Your task to perform on an android device: Open Maps and search for coffee Image 0: 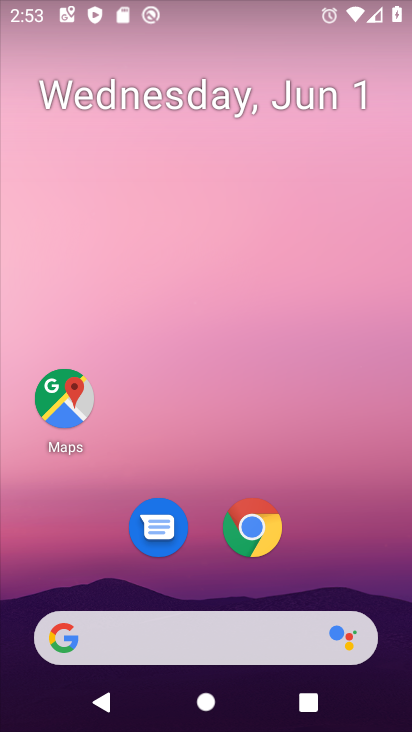
Step 0: click (61, 402)
Your task to perform on an android device: Open Maps and search for coffee Image 1: 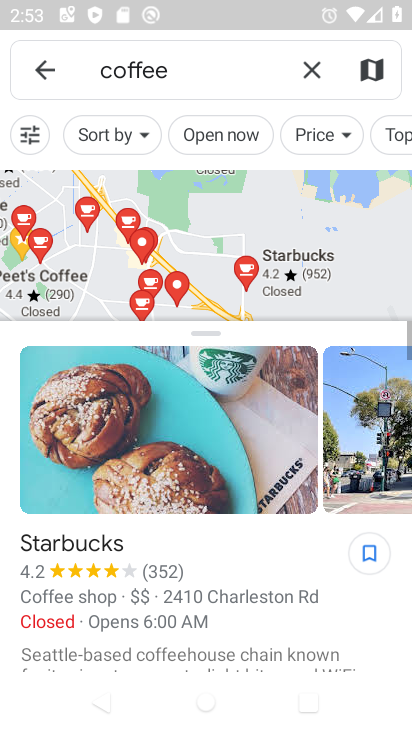
Step 1: click (313, 69)
Your task to perform on an android device: Open Maps and search for coffee Image 2: 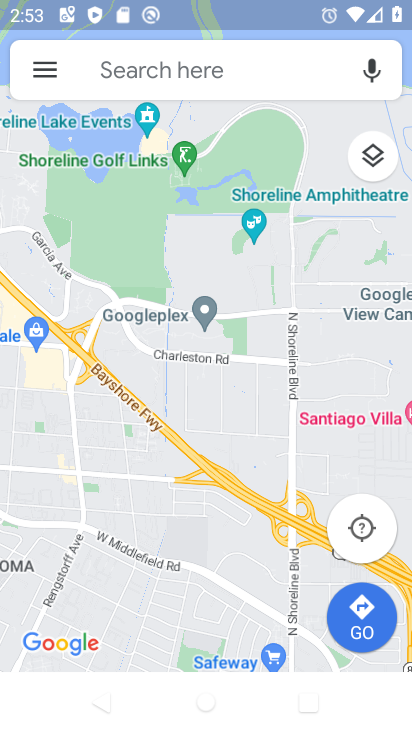
Step 2: type "coffee"
Your task to perform on an android device: Open Maps and search for coffee Image 3: 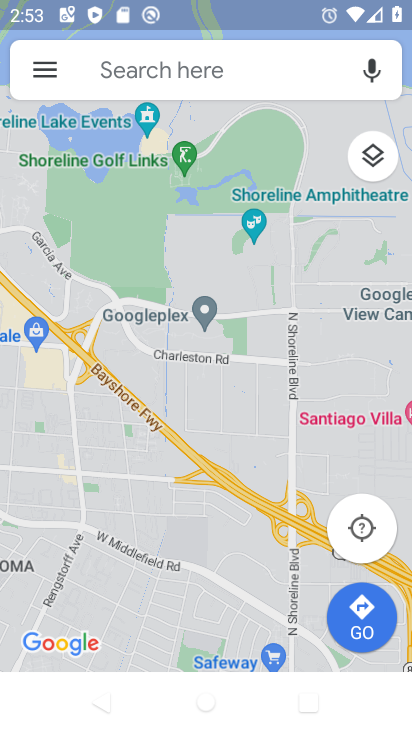
Step 3: click (277, 47)
Your task to perform on an android device: Open Maps and search for coffee Image 4: 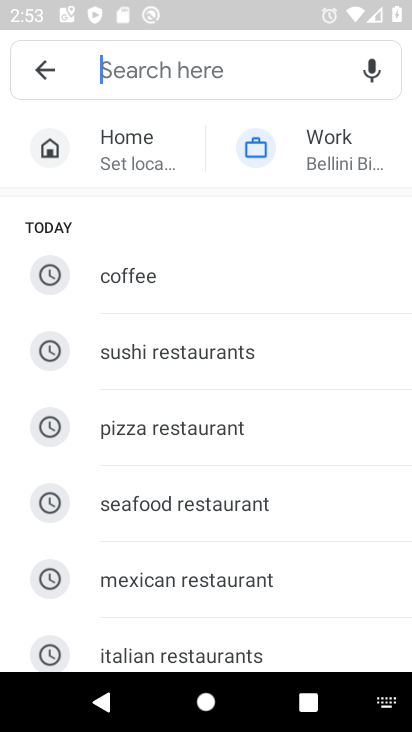
Step 4: click (145, 268)
Your task to perform on an android device: Open Maps and search for coffee Image 5: 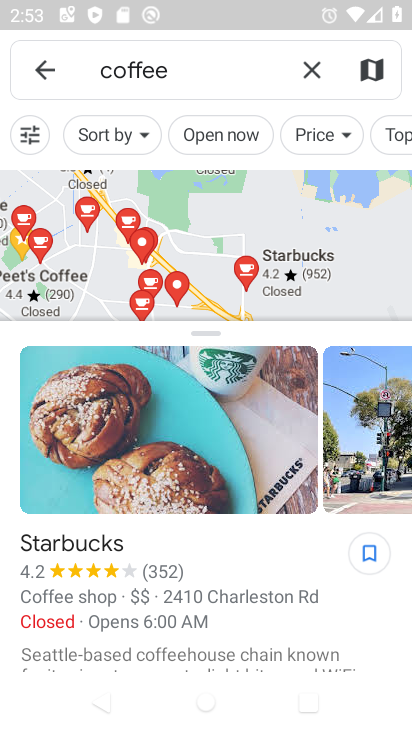
Step 5: task complete